Your task to perform on an android device: change notifications settings Image 0: 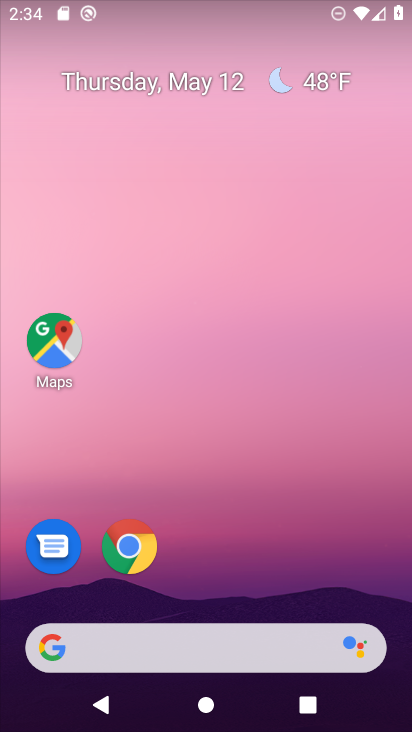
Step 0: drag from (266, 700) to (224, 269)
Your task to perform on an android device: change notifications settings Image 1: 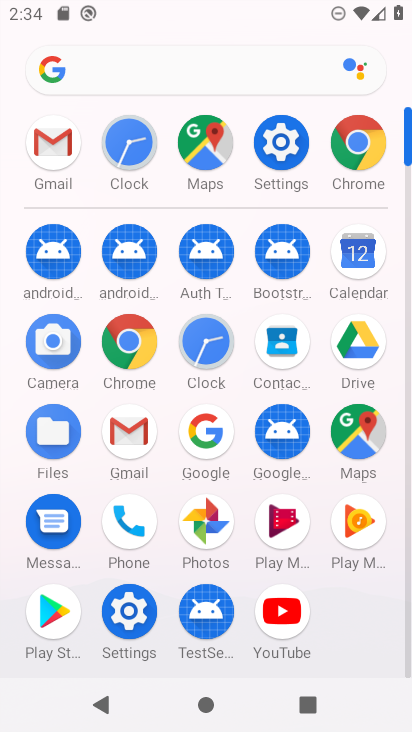
Step 1: click (137, 616)
Your task to perform on an android device: change notifications settings Image 2: 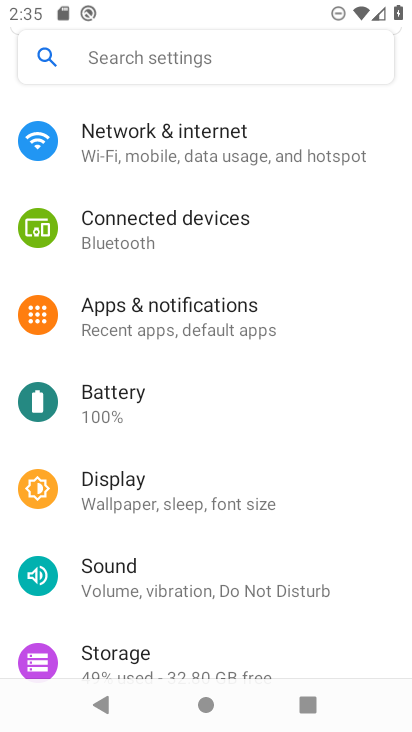
Step 2: click (179, 65)
Your task to perform on an android device: change notifications settings Image 3: 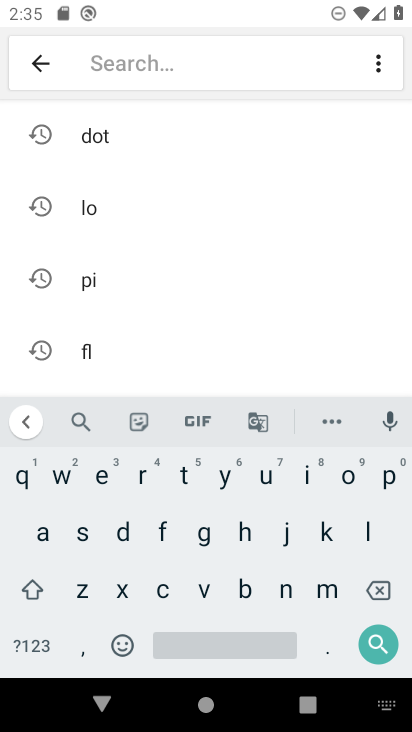
Step 3: click (280, 597)
Your task to perform on an android device: change notifications settings Image 4: 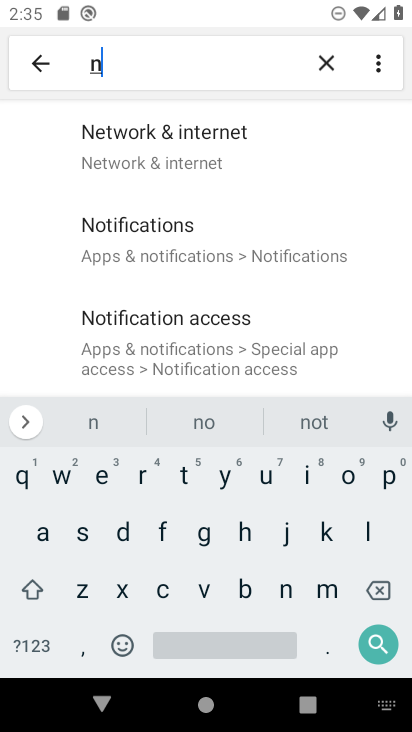
Step 4: click (342, 480)
Your task to perform on an android device: change notifications settings Image 5: 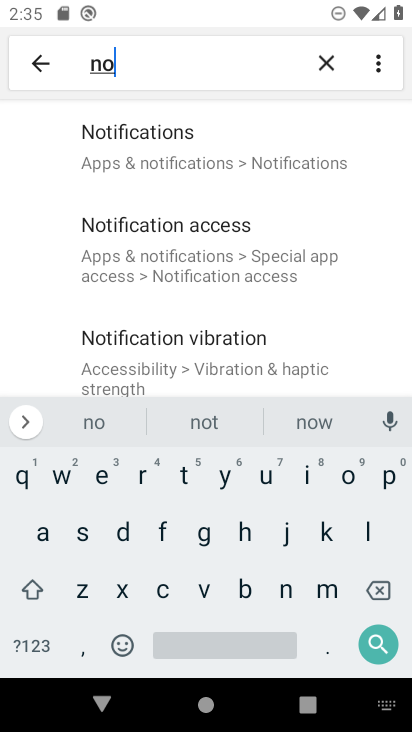
Step 5: click (155, 167)
Your task to perform on an android device: change notifications settings Image 6: 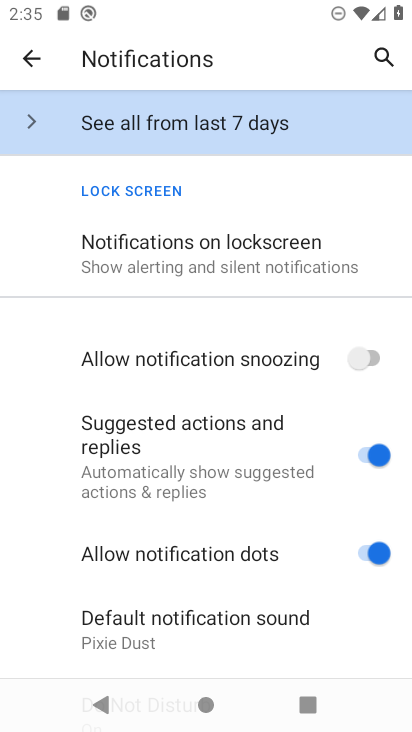
Step 6: click (155, 265)
Your task to perform on an android device: change notifications settings Image 7: 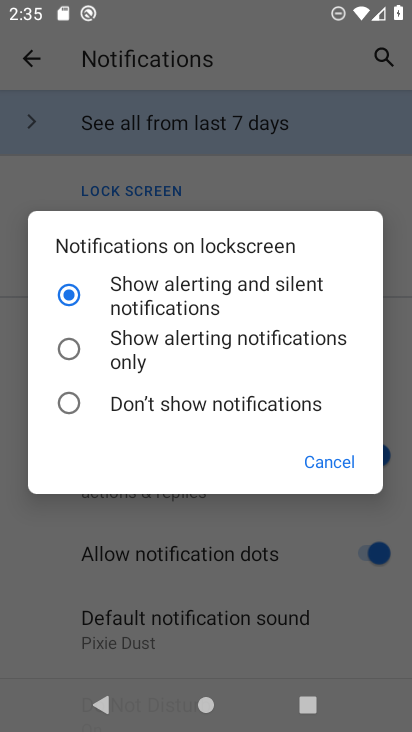
Step 7: click (150, 330)
Your task to perform on an android device: change notifications settings Image 8: 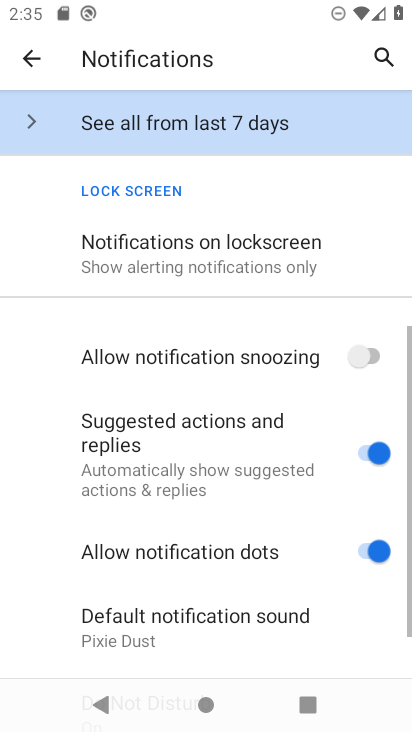
Step 8: task complete